Your task to perform on an android device: Open the map Image 0: 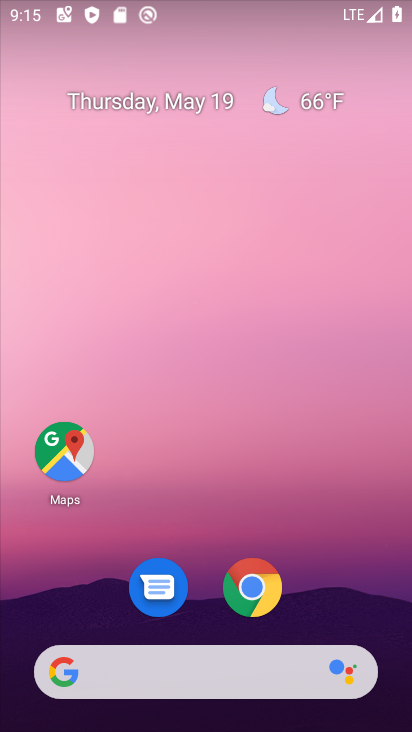
Step 0: click (67, 460)
Your task to perform on an android device: Open the map Image 1: 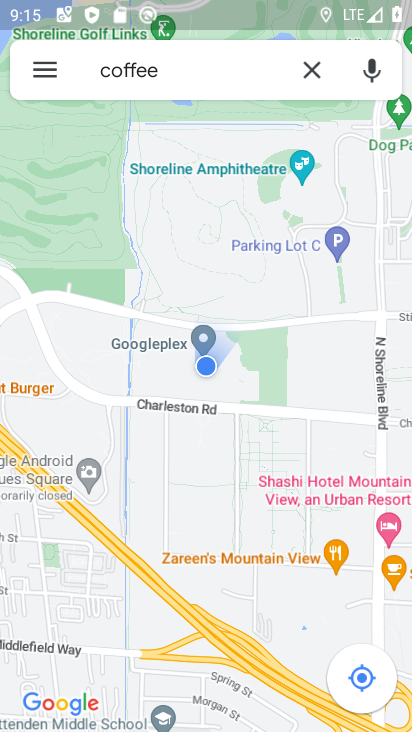
Step 1: task complete